Your task to perform on an android device: turn on priority inbox in the gmail app Image 0: 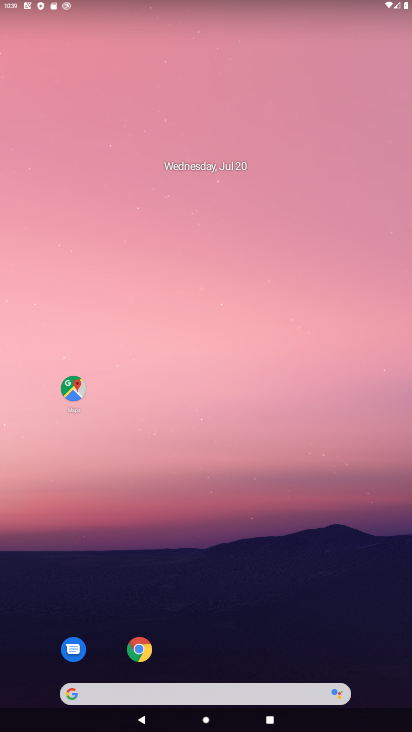
Step 0: drag from (315, 656) to (281, 49)
Your task to perform on an android device: turn on priority inbox in the gmail app Image 1: 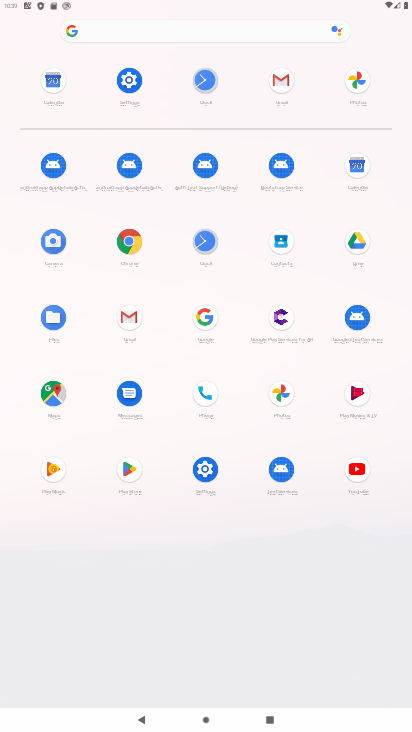
Step 1: click (304, 85)
Your task to perform on an android device: turn on priority inbox in the gmail app Image 2: 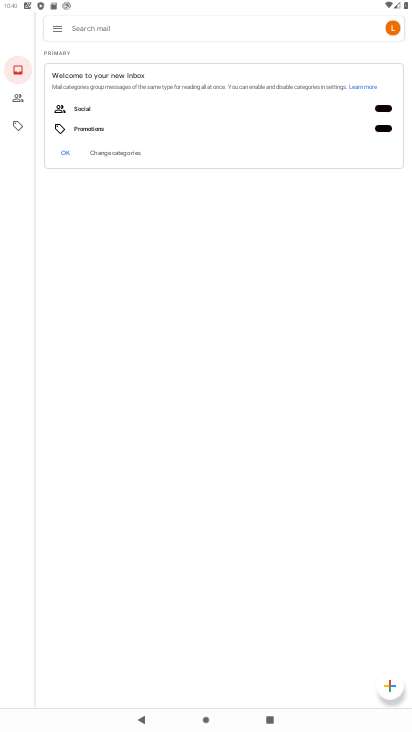
Step 2: click (62, 36)
Your task to perform on an android device: turn on priority inbox in the gmail app Image 3: 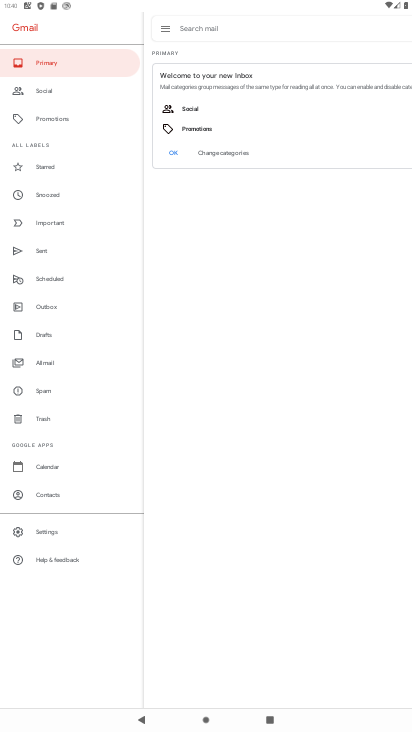
Step 3: click (48, 526)
Your task to perform on an android device: turn on priority inbox in the gmail app Image 4: 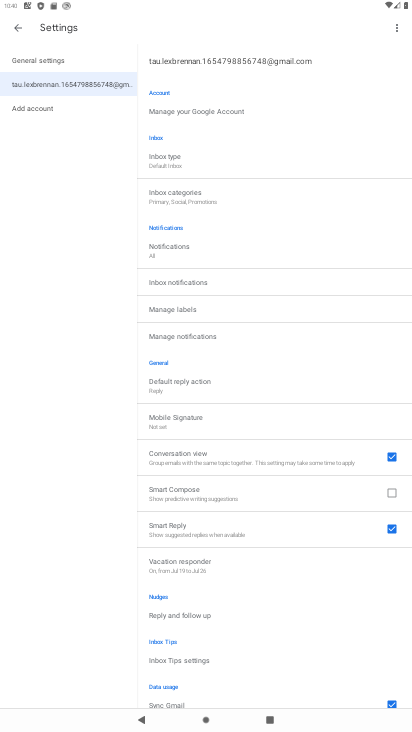
Step 4: task complete